Your task to perform on an android device: open device folders in google photos Image 0: 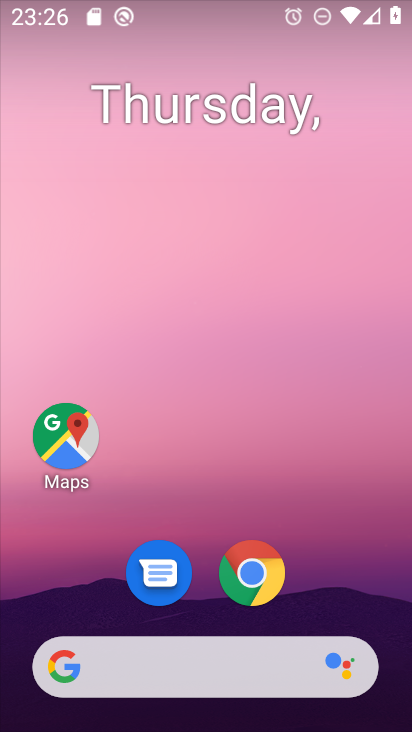
Step 0: drag from (365, 515) to (301, 123)
Your task to perform on an android device: open device folders in google photos Image 1: 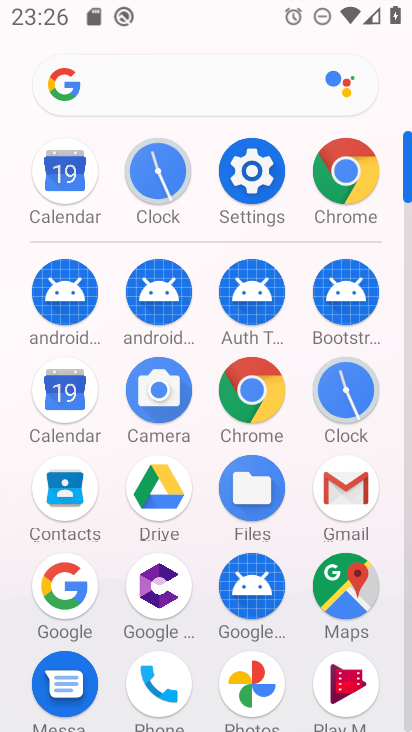
Step 1: click (270, 689)
Your task to perform on an android device: open device folders in google photos Image 2: 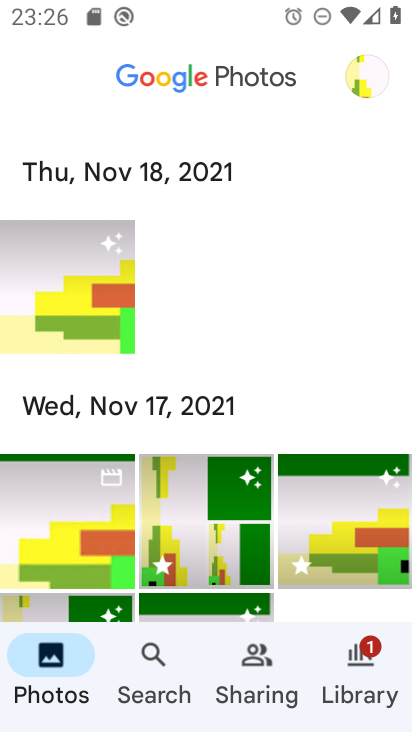
Step 2: click (379, 677)
Your task to perform on an android device: open device folders in google photos Image 3: 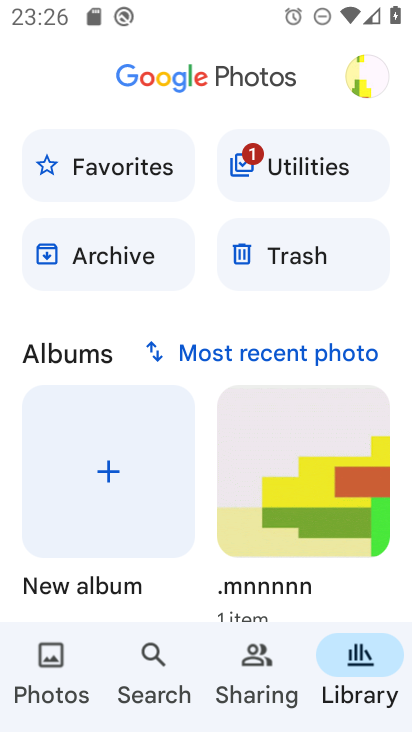
Step 3: click (309, 164)
Your task to perform on an android device: open device folders in google photos Image 4: 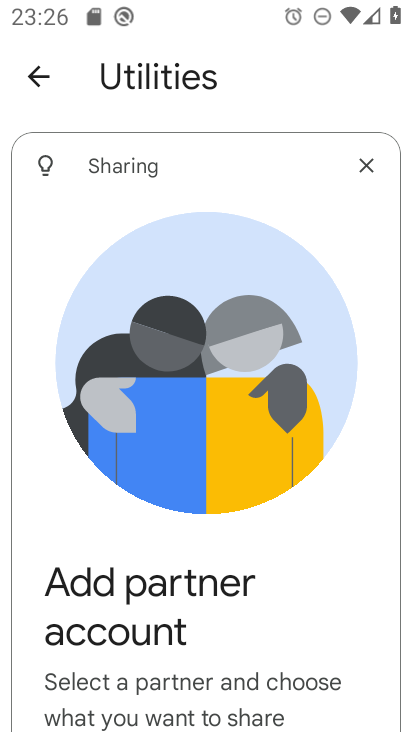
Step 4: drag from (249, 567) to (272, 76)
Your task to perform on an android device: open device folders in google photos Image 5: 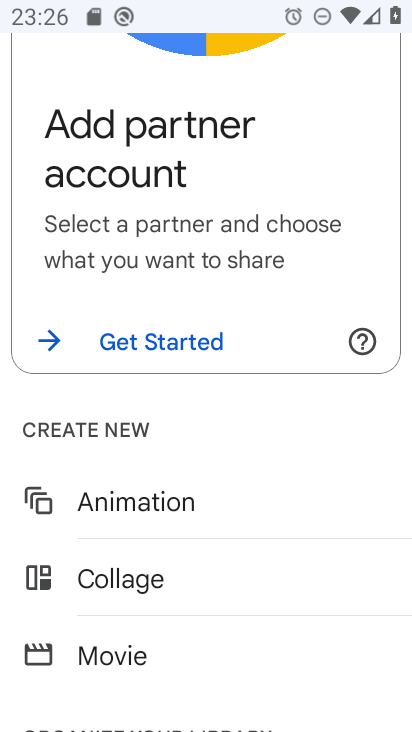
Step 5: drag from (179, 569) to (192, 92)
Your task to perform on an android device: open device folders in google photos Image 6: 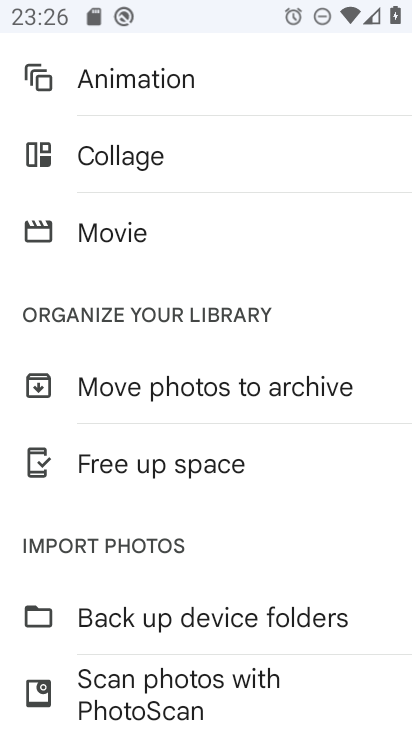
Step 6: drag from (192, 481) to (251, 271)
Your task to perform on an android device: open device folders in google photos Image 7: 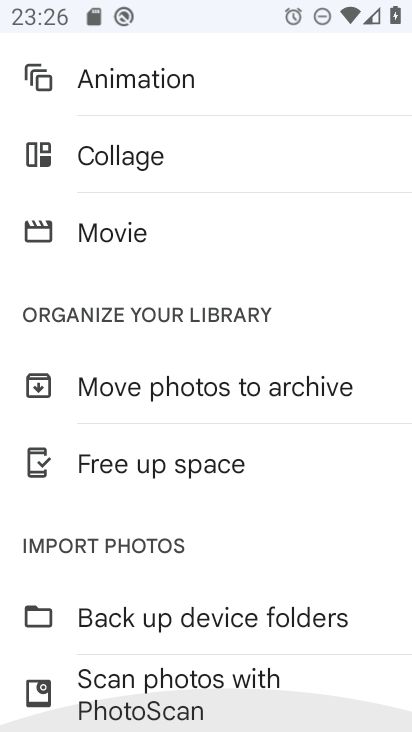
Step 7: click (258, 179)
Your task to perform on an android device: open device folders in google photos Image 8: 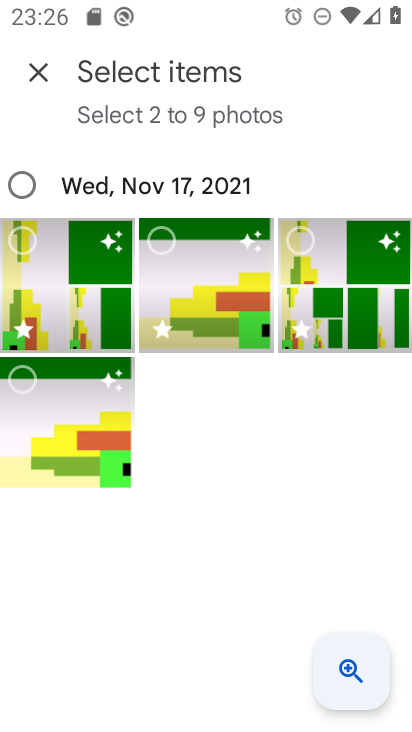
Step 8: click (23, 60)
Your task to perform on an android device: open device folders in google photos Image 9: 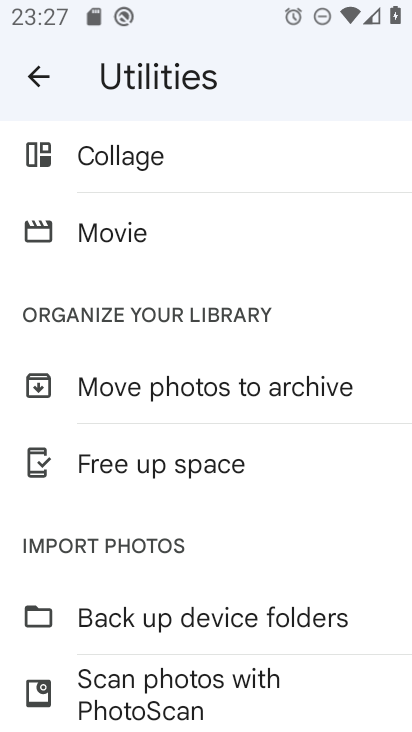
Step 9: click (263, 622)
Your task to perform on an android device: open device folders in google photos Image 10: 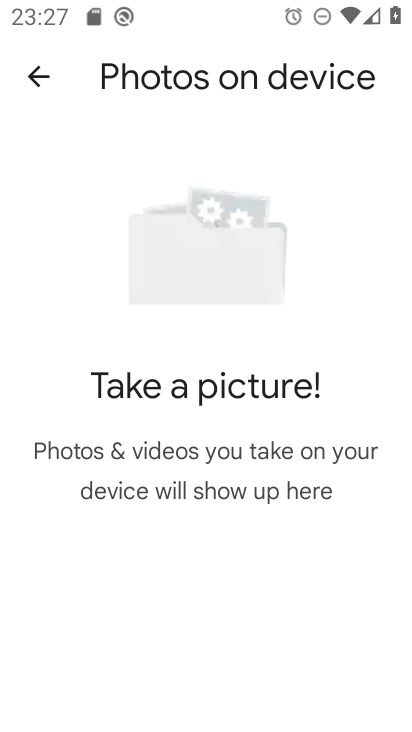
Step 10: task complete